Your task to perform on an android device: Go to CNN.com Image 0: 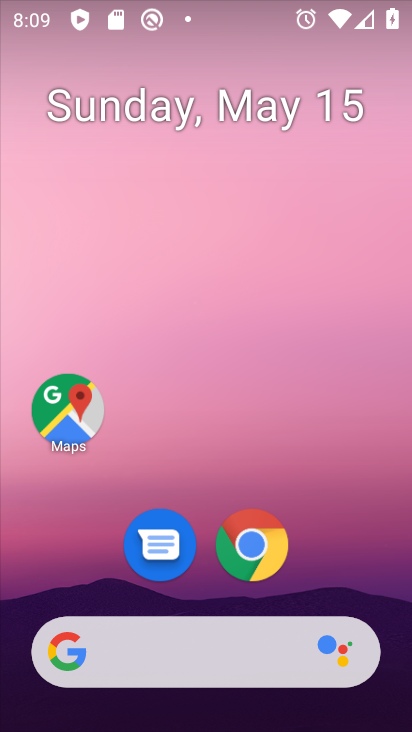
Step 0: drag from (376, 551) to (392, 155)
Your task to perform on an android device: Go to CNN.com Image 1: 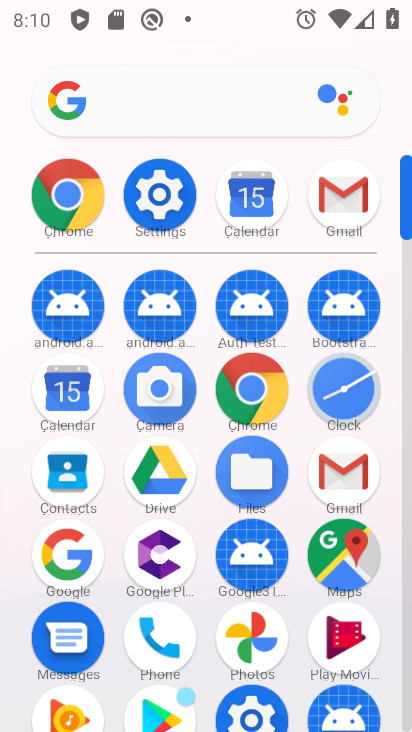
Step 1: click (255, 401)
Your task to perform on an android device: Go to CNN.com Image 2: 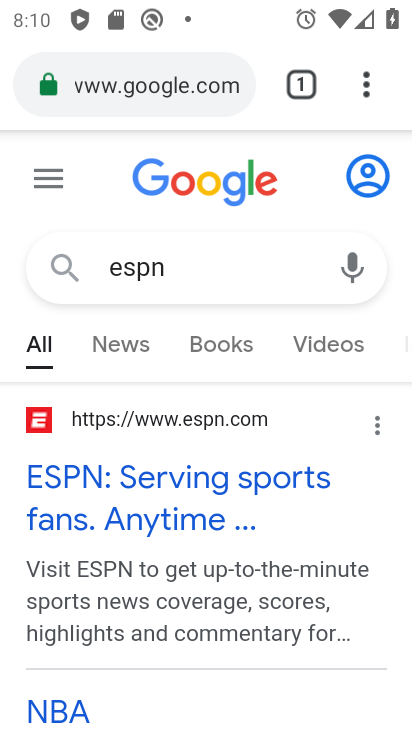
Step 2: click (178, 91)
Your task to perform on an android device: Go to CNN.com Image 3: 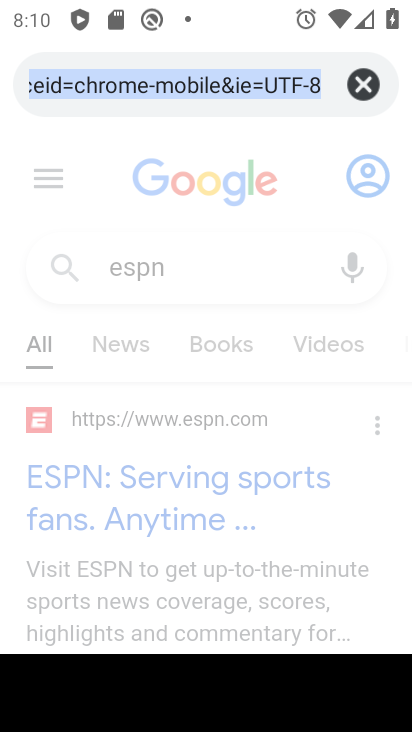
Step 3: click (360, 90)
Your task to perform on an android device: Go to CNN.com Image 4: 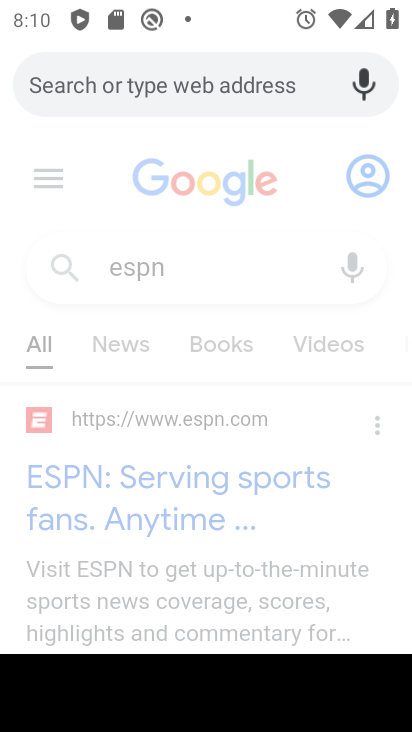
Step 4: click (253, 87)
Your task to perform on an android device: Go to CNN.com Image 5: 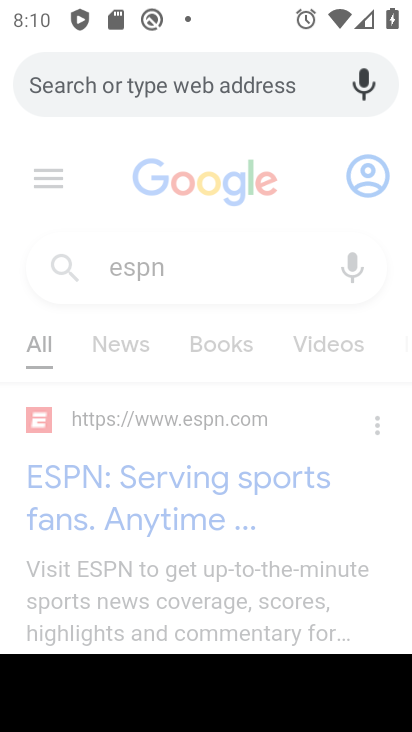
Step 5: type "cnn.com"
Your task to perform on an android device: Go to CNN.com Image 6: 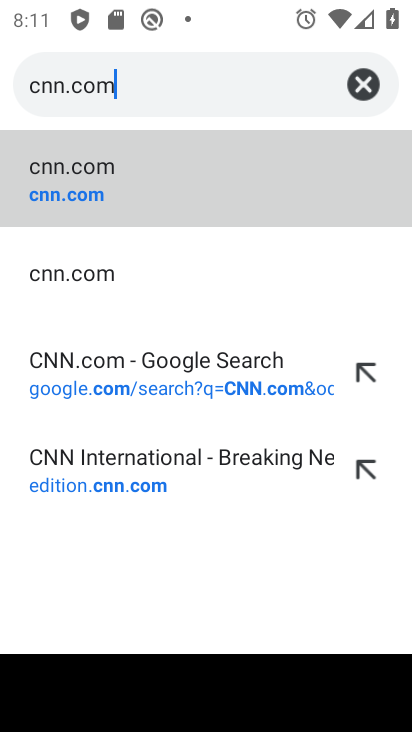
Step 6: click (85, 198)
Your task to perform on an android device: Go to CNN.com Image 7: 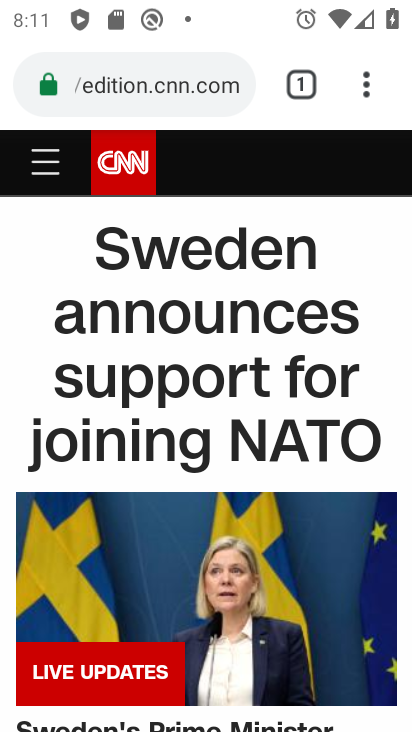
Step 7: task complete